Your task to perform on an android device: Open sound settings Image 0: 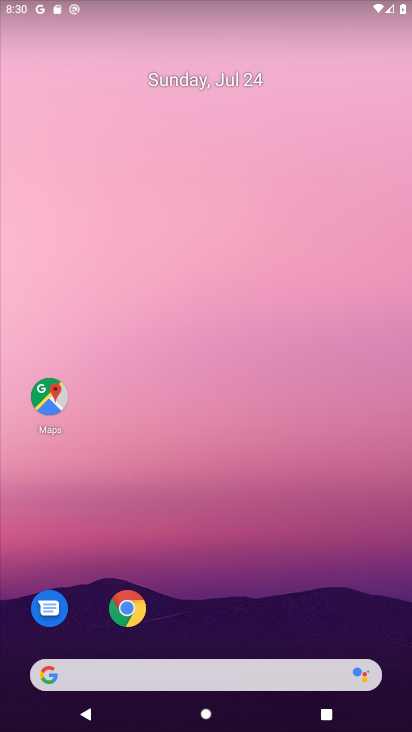
Step 0: drag from (244, 623) to (216, 303)
Your task to perform on an android device: Open sound settings Image 1: 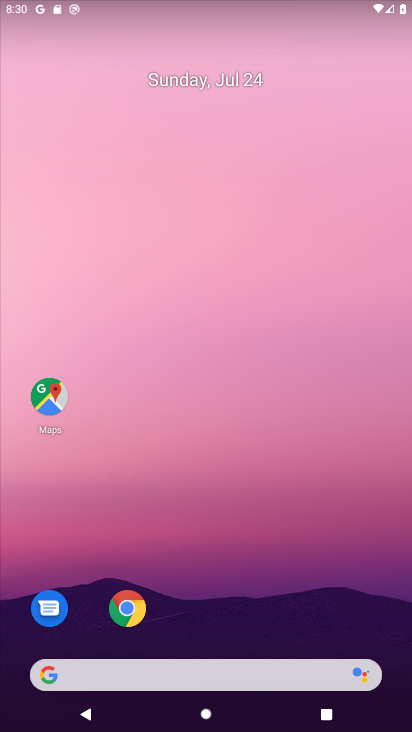
Step 1: drag from (328, 619) to (273, 443)
Your task to perform on an android device: Open sound settings Image 2: 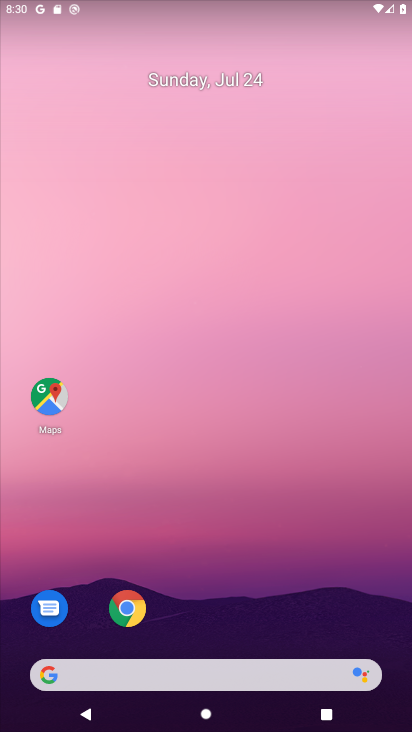
Step 2: drag from (274, 609) to (339, 41)
Your task to perform on an android device: Open sound settings Image 3: 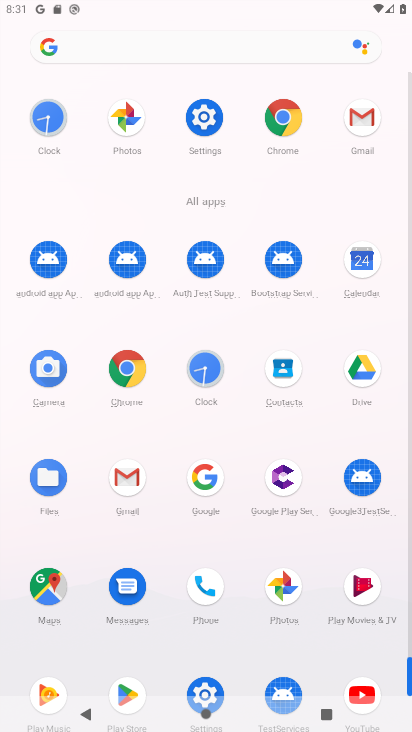
Step 3: click (218, 104)
Your task to perform on an android device: Open sound settings Image 4: 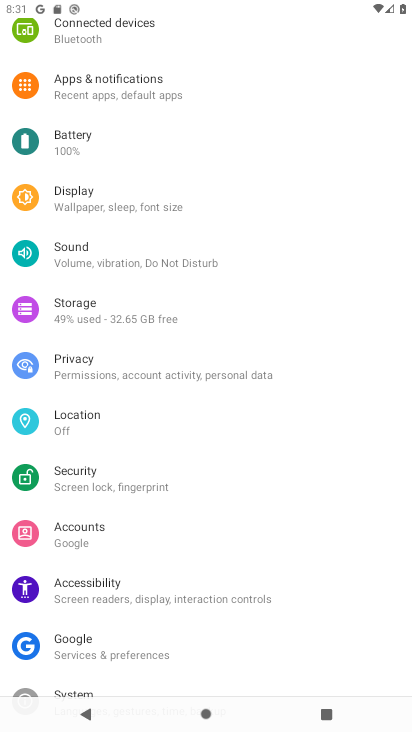
Step 4: click (91, 251)
Your task to perform on an android device: Open sound settings Image 5: 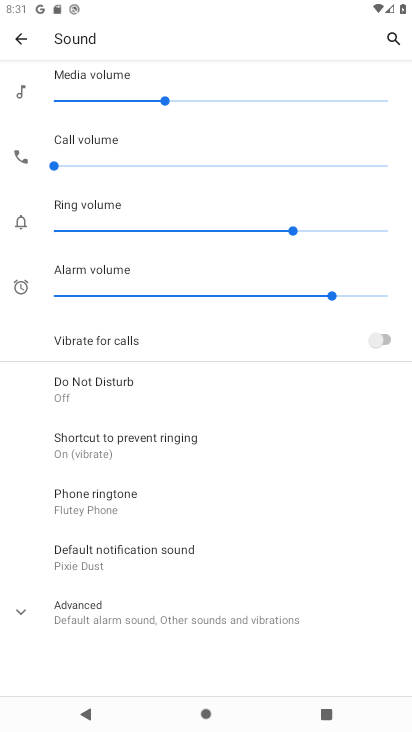
Step 5: task complete